Your task to perform on an android device: turn off location history Image 0: 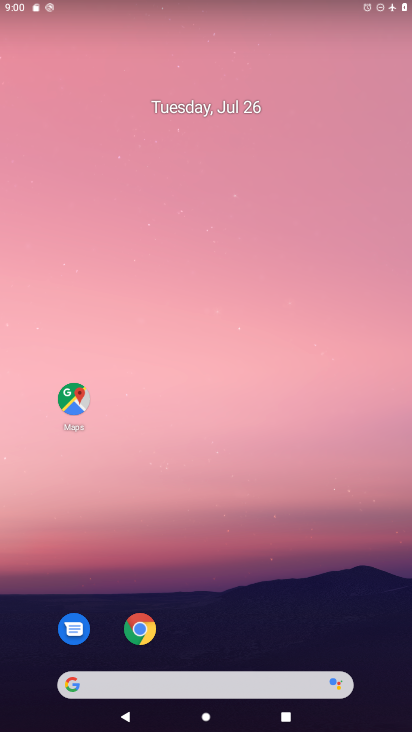
Step 0: drag from (195, 638) to (185, 113)
Your task to perform on an android device: turn off location history Image 1: 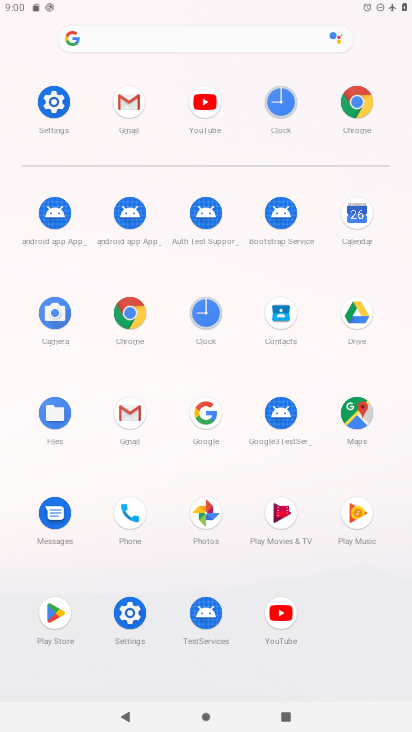
Step 1: click (59, 107)
Your task to perform on an android device: turn off location history Image 2: 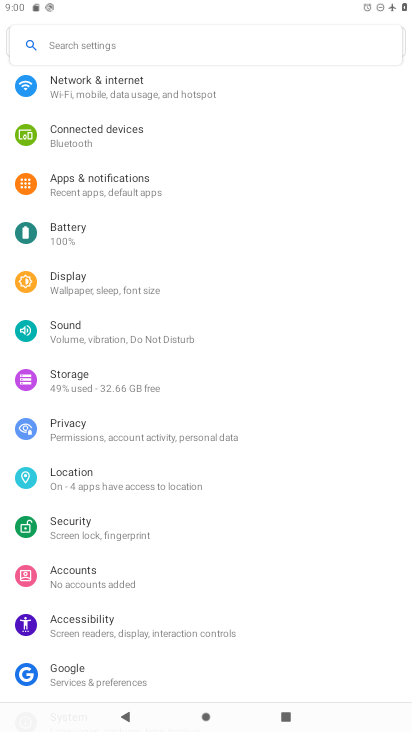
Step 2: click (98, 462)
Your task to perform on an android device: turn off location history Image 3: 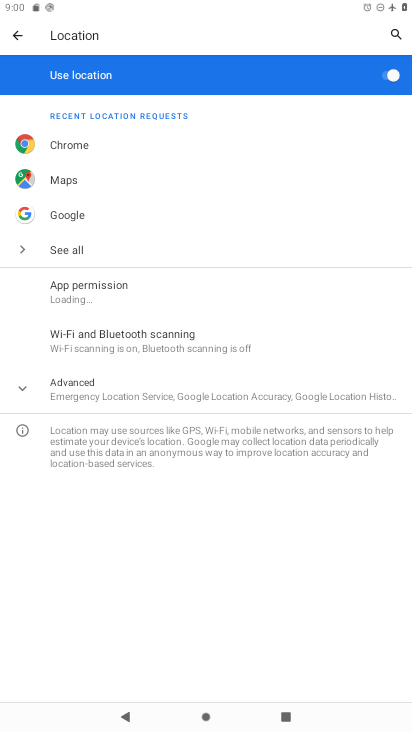
Step 3: click (72, 394)
Your task to perform on an android device: turn off location history Image 4: 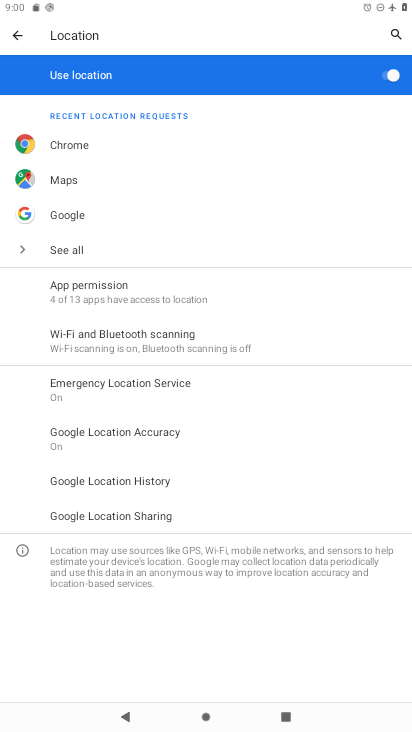
Step 4: click (168, 483)
Your task to perform on an android device: turn off location history Image 5: 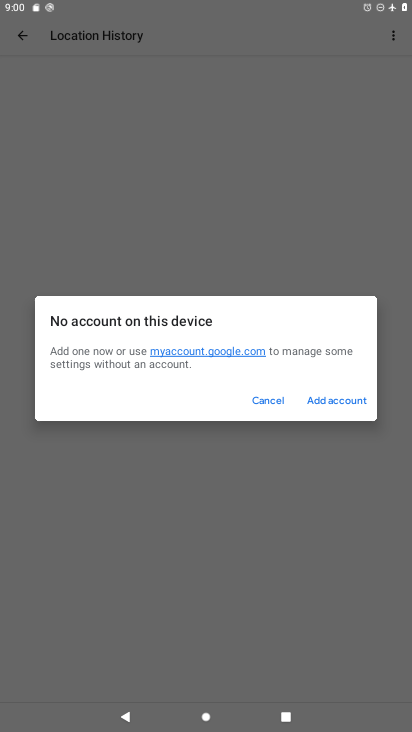
Step 5: task complete